Your task to perform on an android device: turn off location history Image 0: 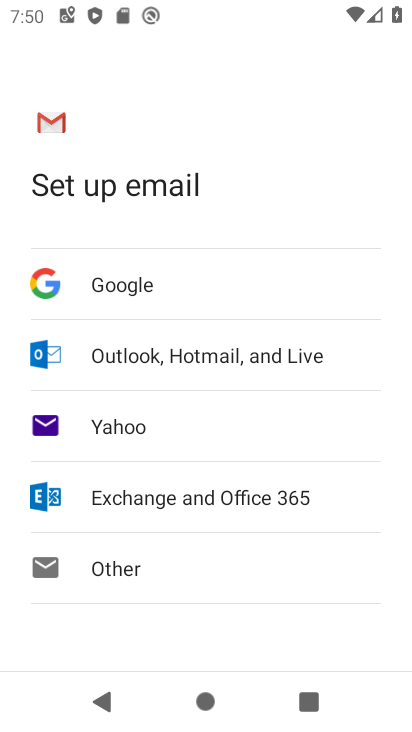
Step 0: press home button
Your task to perform on an android device: turn off location history Image 1: 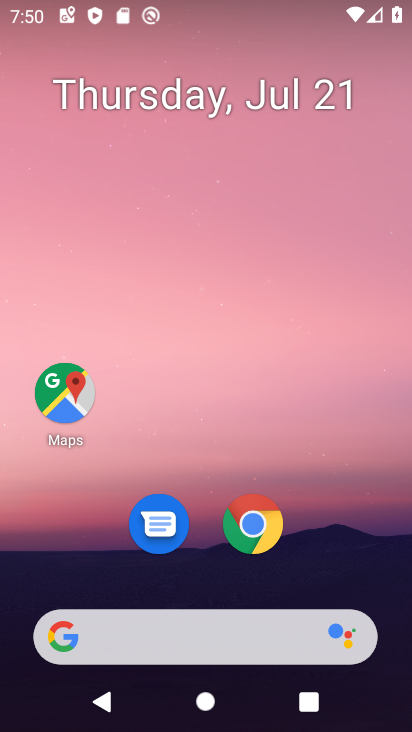
Step 1: click (65, 391)
Your task to perform on an android device: turn off location history Image 2: 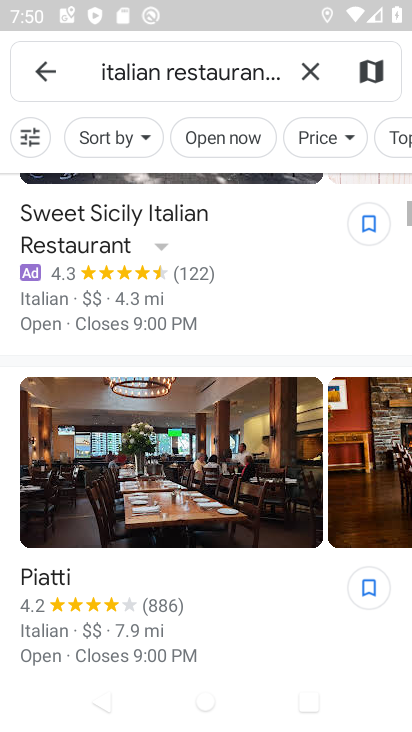
Step 2: click (48, 69)
Your task to perform on an android device: turn off location history Image 3: 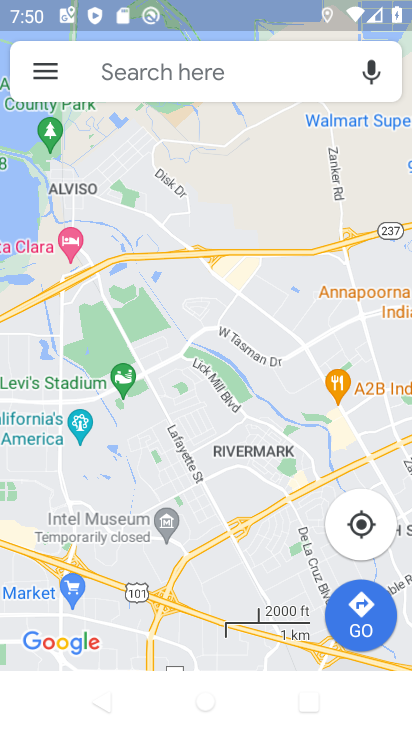
Step 3: click (53, 70)
Your task to perform on an android device: turn off location history Image 4: 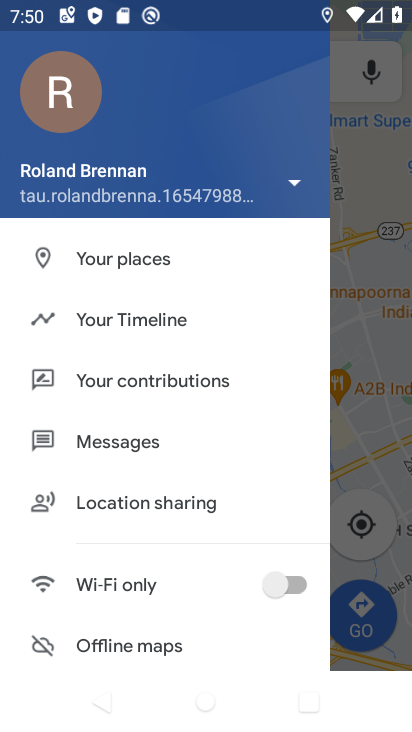
Step 4: click (148, 321)
Your task to perform on an android device: turn off location history Image 5: 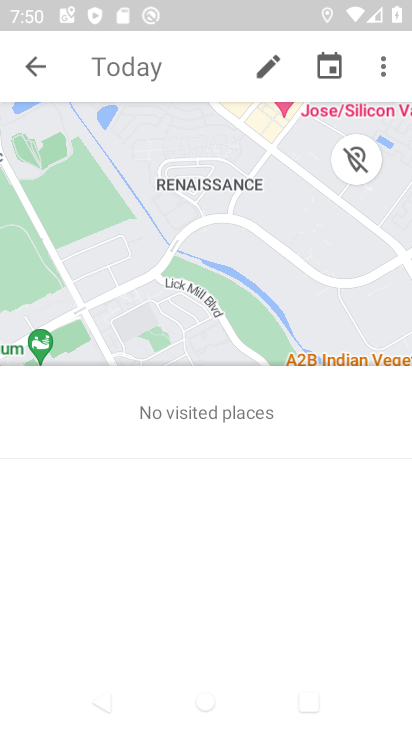
Step 5: click (378, 64)
Your task to perform on an android device: turn off location history Image 6: 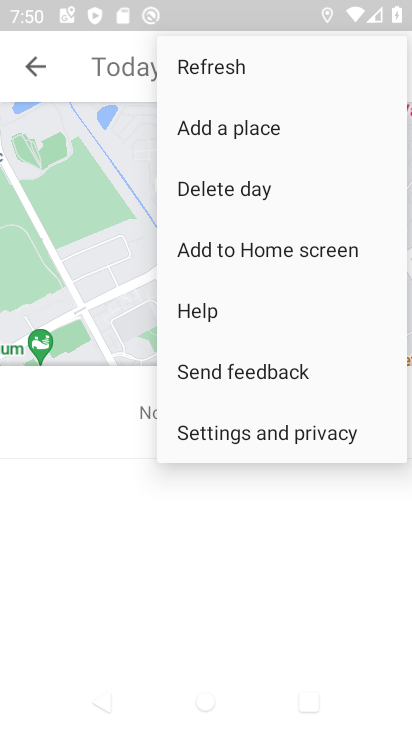
Step 6: click (253, 428)
Your task to perform on an android device: turn off location history Image 7: 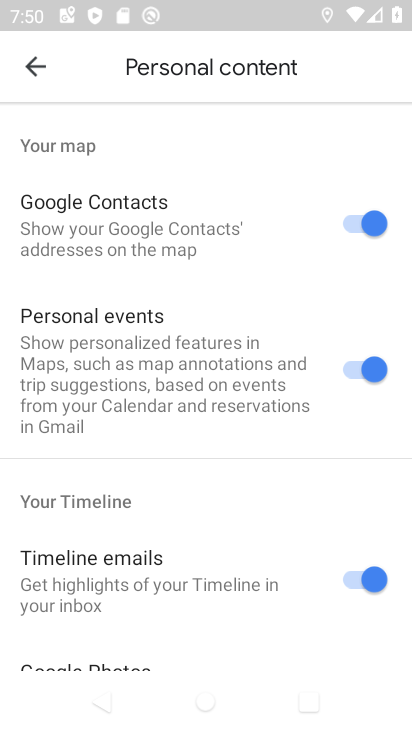
Step 7: drag from (195, 609) to (344, 110)
Your task to perform on an android device: turn off location history Image 8: 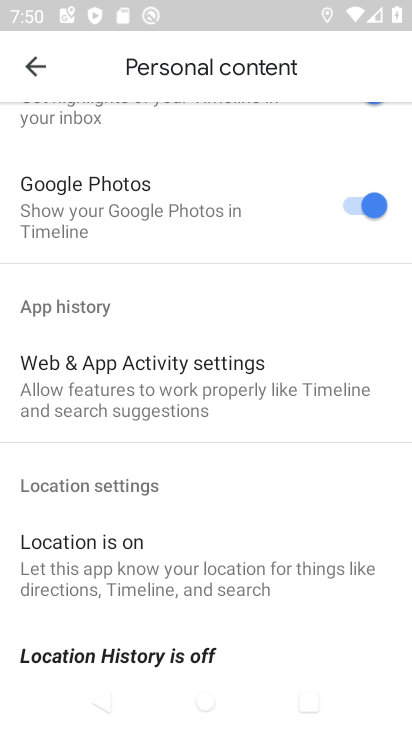
Step 8: drag from (266, 500) to (322, 142)
Your task to perform on an android device: turn off location history Image 9: 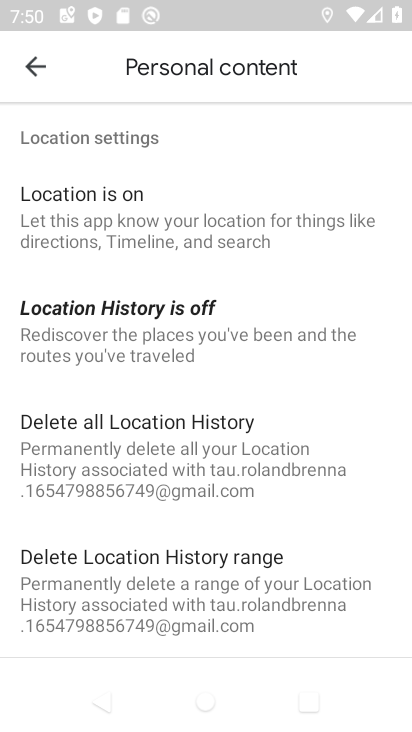
Step 9: click (189, 329)
Your task to perform on an android device: turn off location history Image 10: 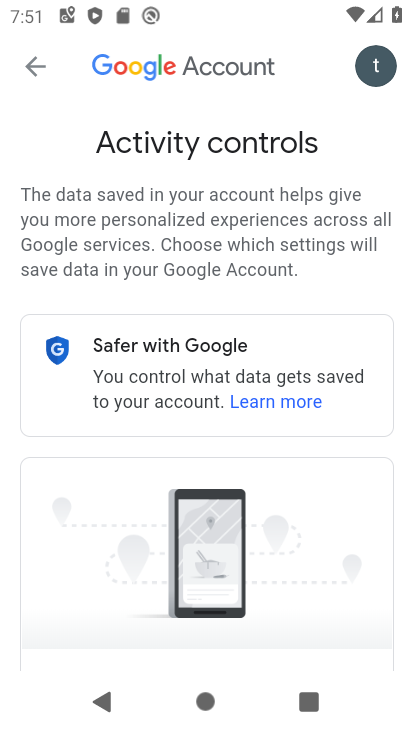
Step 10: task complete